Your task to perform on an android device: Open calendar and show me the first week of next month Image 0: 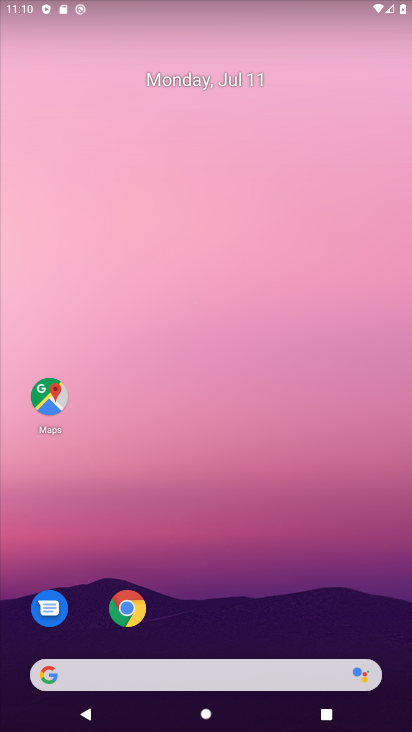
Step 0: click (198, 87)
Your task to perform on an android device: Open calendar and show me the first week of next month Image 1: 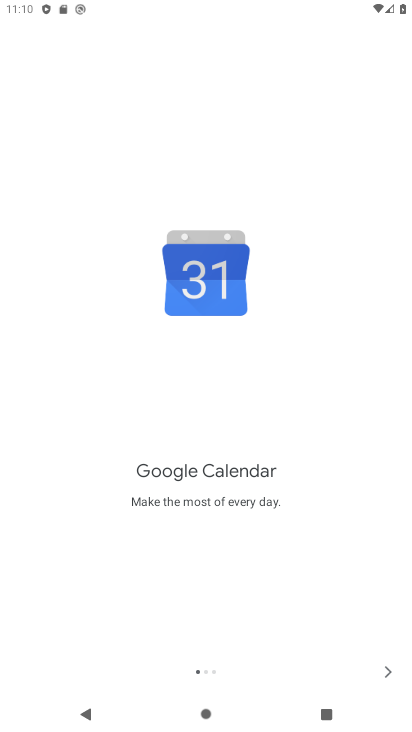
Step 1: click (386, 672)
Your task to perform on an android device: Open calendar and show me the first week of next month Image 2: 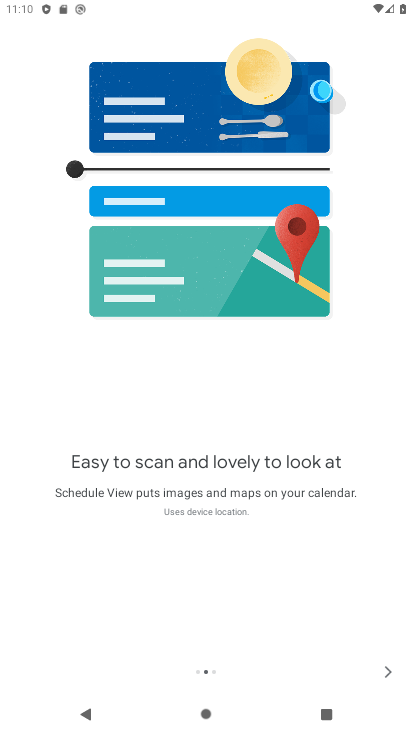
Step 2: click (386, 672)
Your task to perform on an android device: Open calendar and show me the first week of next month Image 3: 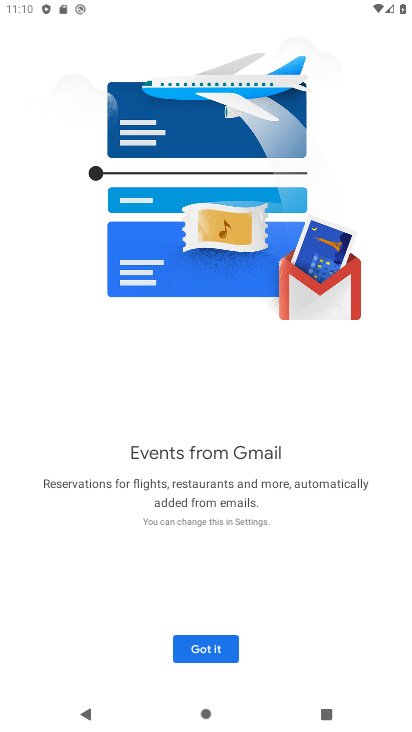
Step 3: click (191, 639)
Your task to perform on an android device: Open calendar and show me the first week of next month Image 4: 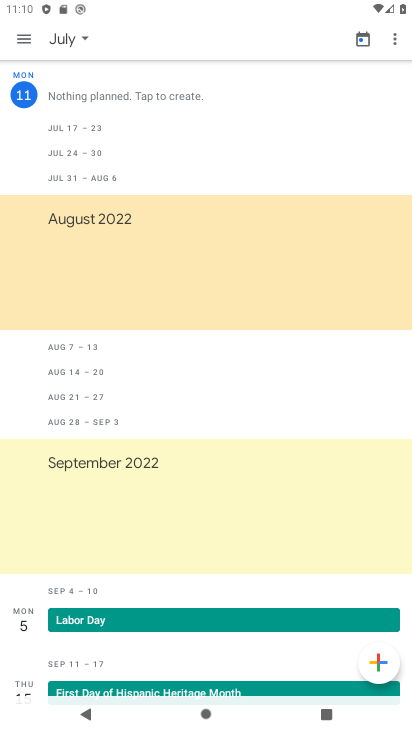
Step 4: click (79, 42)
Your task to perform on an android device: Open calendar and show me the first week of next month Image 5: 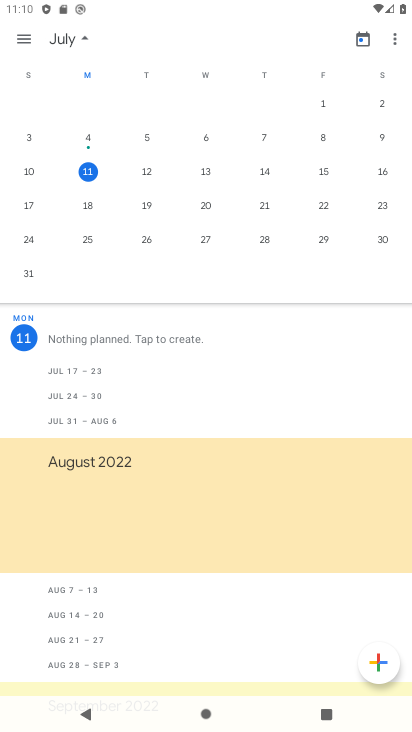
Step 5: drag from (361, 280) to (43, 231)
Your task to perform on an android device: Open calendar and show me the first week of next month Image 6: 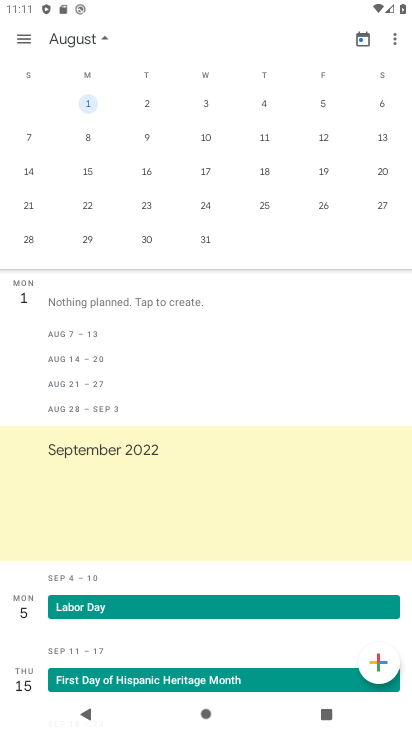
Step 6: click (258, 108)
Your task to perform on an android device: Open calendar and show me the first week of next month Image 7: 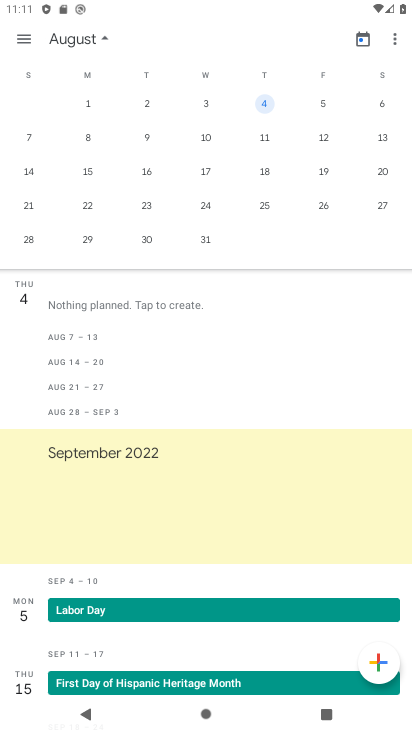
Step 7: task complete